Your task to perform on an android device: turn off notifications in google photos Image 0: 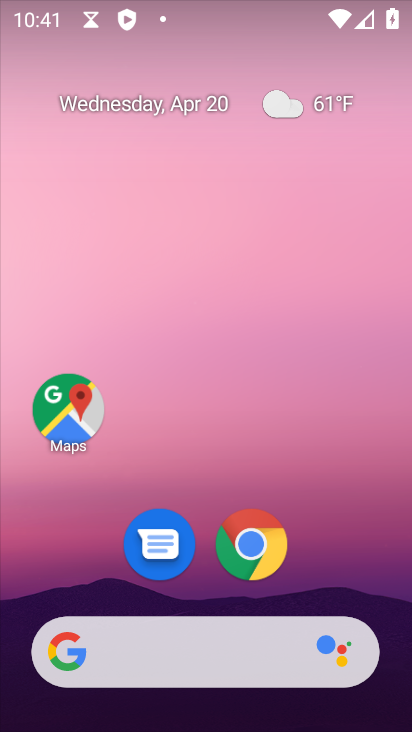
Step 0: press home button
Your task to perform on an android device: turn off notifications in google photos Image 1: 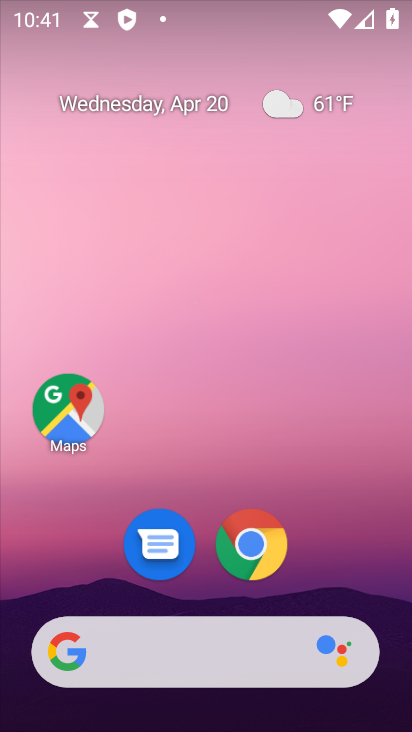
Step 1: drag from (154, 652) to (330, 124)
Your task to perform on an android device: turn off notifications in google photos Image 2: 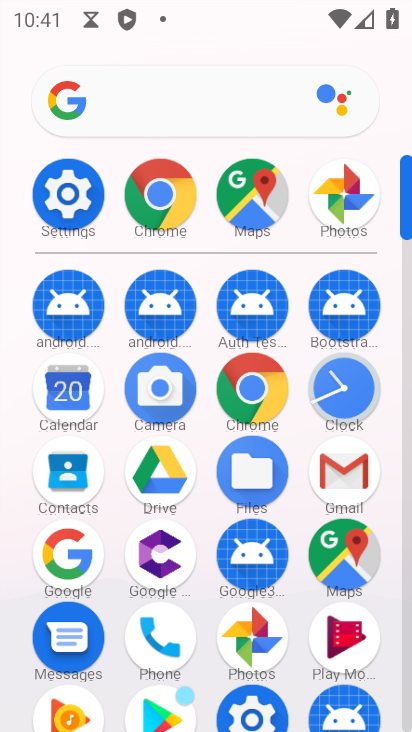
Step 2: click (244, 631)
Your task to perform on an android device: turn off notifications in google photos Image 3: 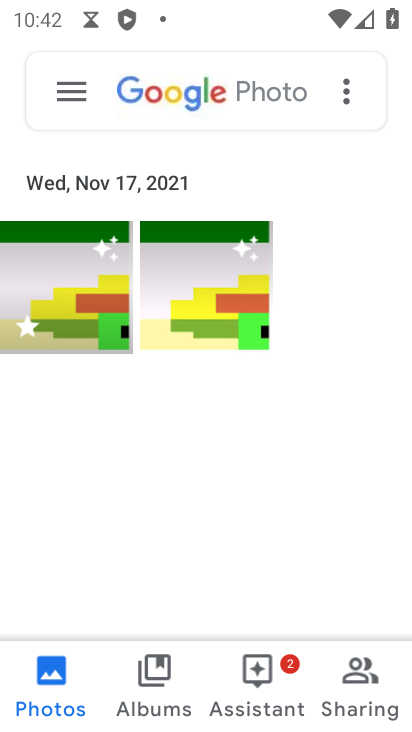
Step 3: click (73, 101)
Your task to perform on an android device: turn off notifications in google photos Image 4: 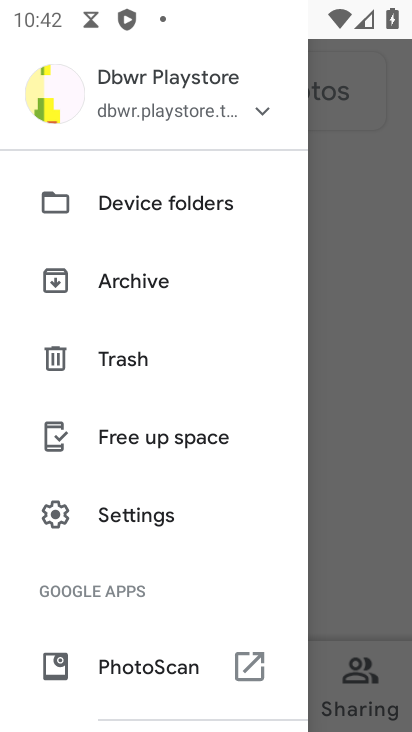
Step 4: click (116, 521)
Your task to perform on an android device: turn off notifications in google photos Image 5: 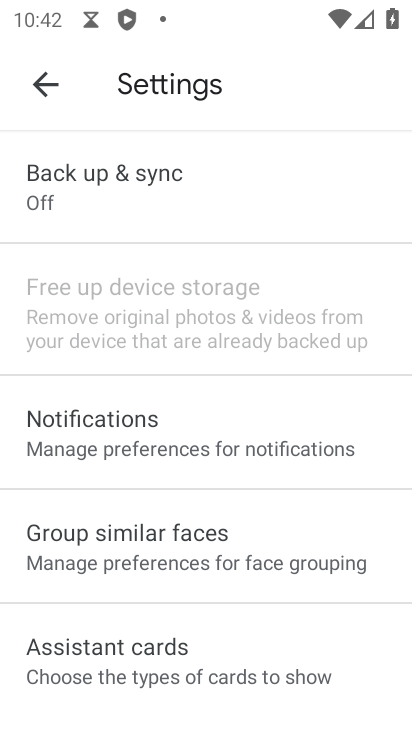
Step 5: click (137, 430)
Your task to perform on an android device: turn off notifications in google photos Image 6: 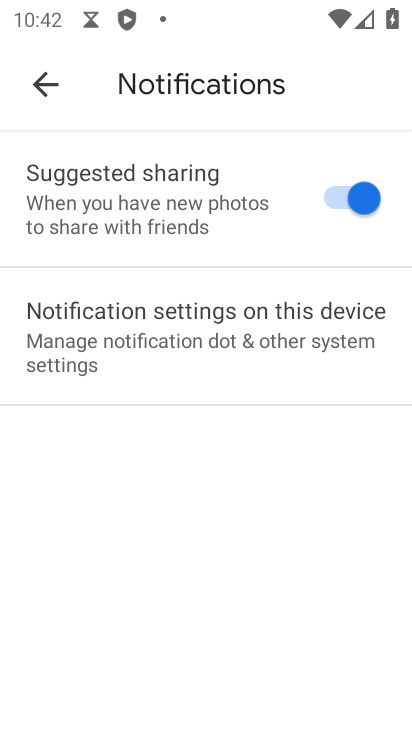
Step 6: click (167, 333)
Your task to perform on an android device: turn off notifications in google photos Image 7: 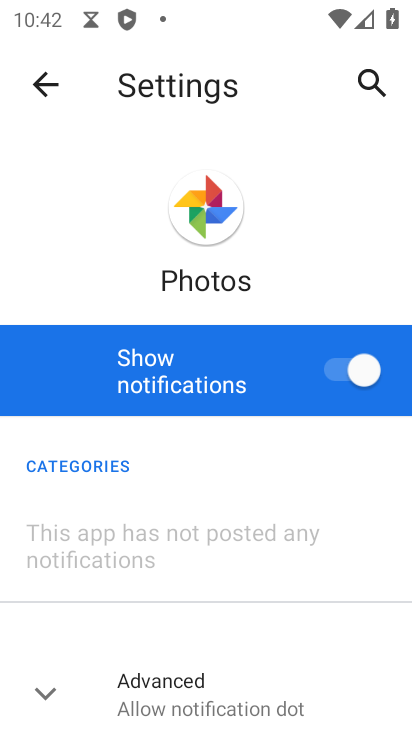
Step 7: click (344, 372)
Your task to perform on an android device: turn off notifications in google photos Image 8: 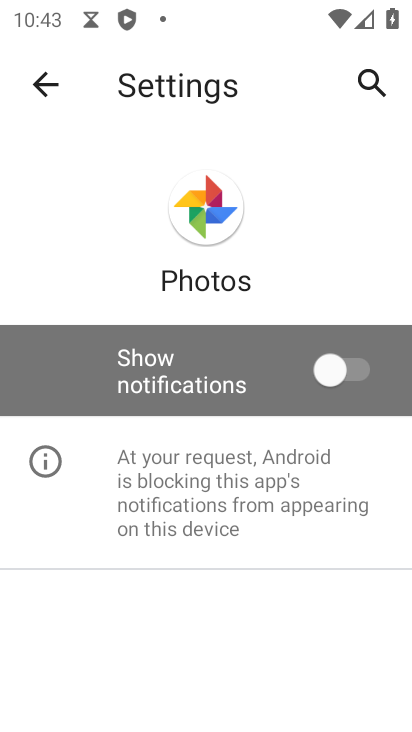
Step 8: task complete